Your task to perform on an android device: toggle javascript in the chrome app Image 0: 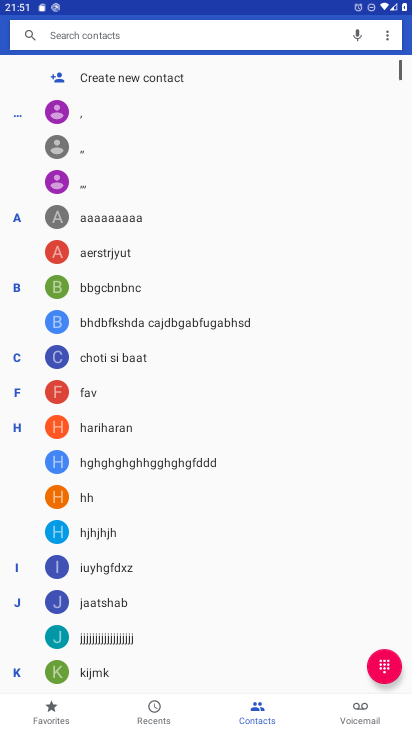
Step 0: press home button
Your task to perform on an android device: toggle javascript in the chrome app Image 1: 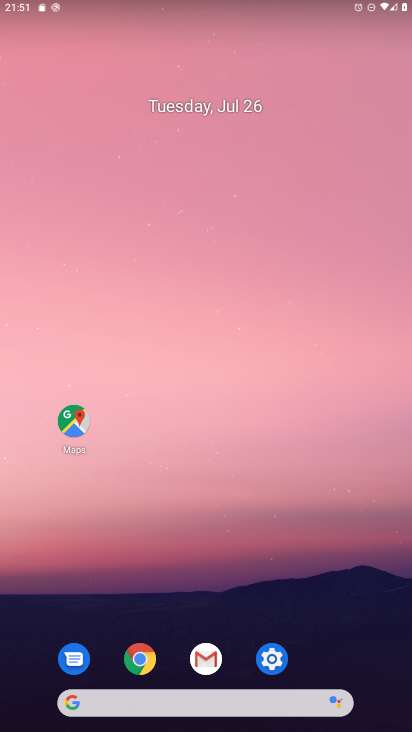
Step 1: click (150, 656)
Your task to perform on an android device: toggle javascript in the chrome app Image 2: 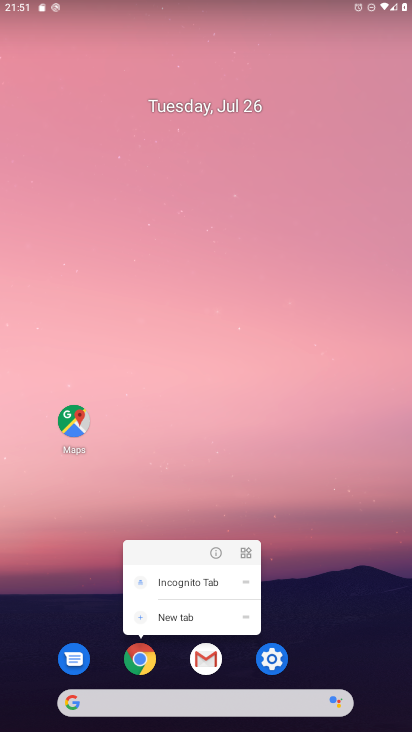
Step 2: click (140, 663)
Your task to perform on an android device: toggle javascript in the chrome app Image 3: 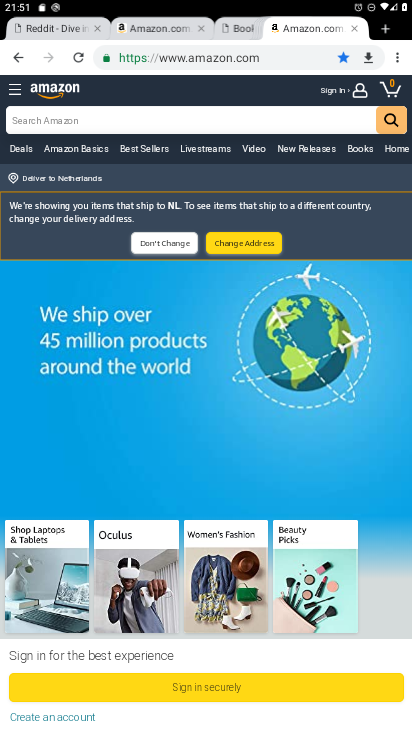
Step 3: click (398, 61)
Your task to perform on an android device: toggle javascript in the chrome app Image 4: 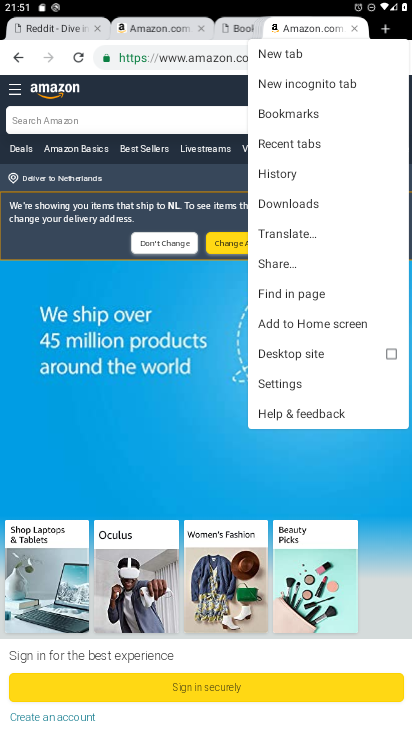
Step 4: click (278, 383)
Your task to perform on an android device: toggle javascript in the chrome app Image 5: 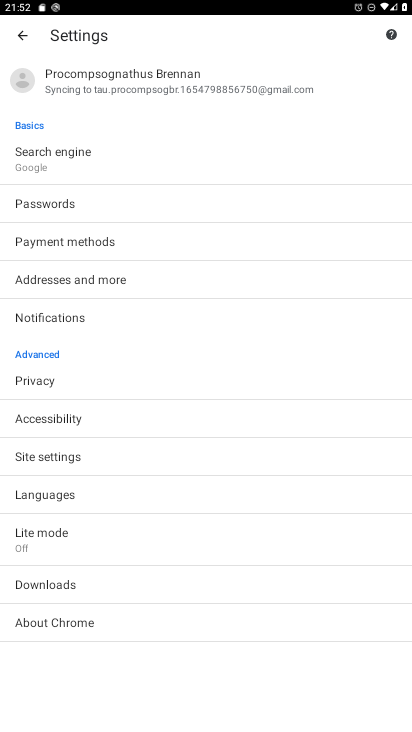
Step 5: click (93, 453)
Your task to perform on an android device: toggle javascript in the chrome app Image 6: 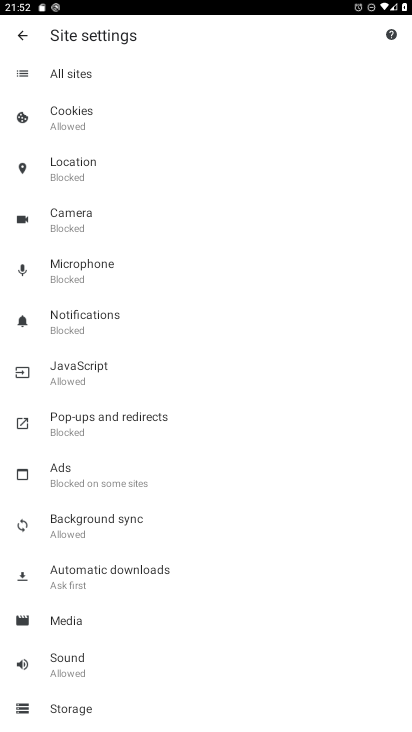
Step 6: click (90, 376)
Your task to perform on an android device: toggle javascript in the chrome app Image 7: 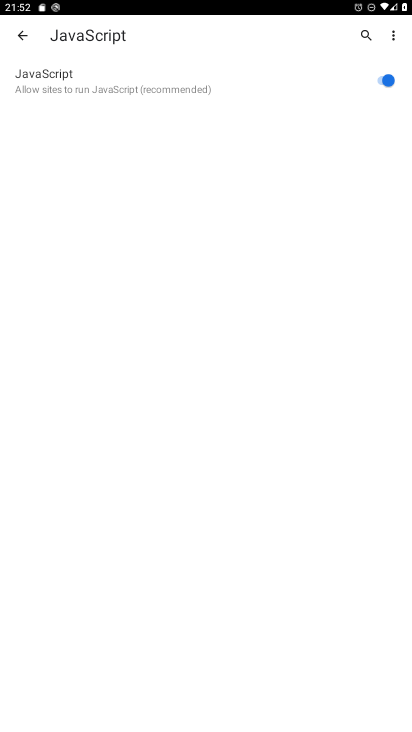
Step 7: task complete